Your task to perform on an android device: Go to privacy settings Image 0: 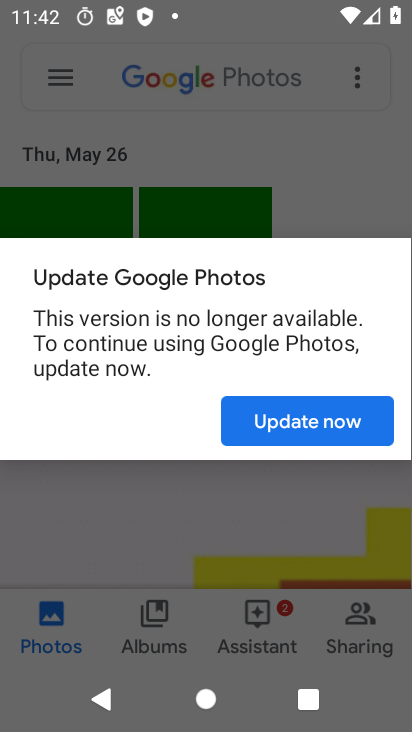
Step 0: press home button
Your task to perform on an android device: Go to privacy settings Image 1: 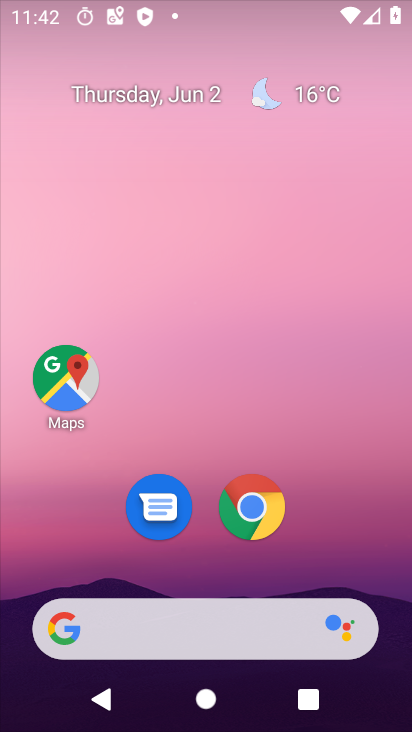
Step 1: drag from (400, 626) to (339, 126)
Your task to perform on an android device: Go to privacy settings Image 2: 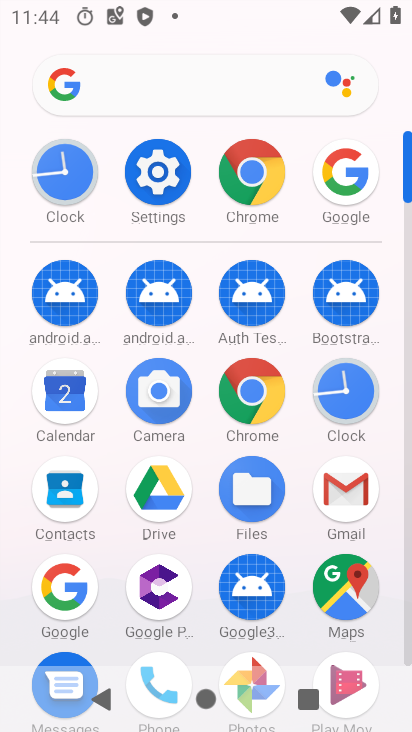
Step 2: click (158, 189)
Your task to perform on an android device: Go to privacy settings Image 3: 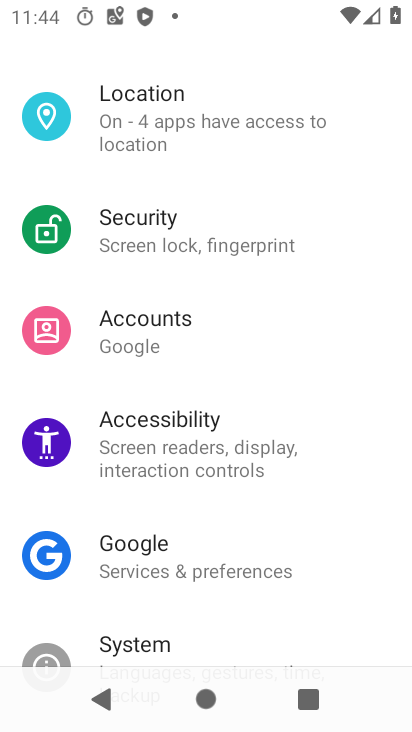
Step 3: drag from (191, 130) to (173, 576)
Your task to perform on an android device: Go to privacy settings Image 4: 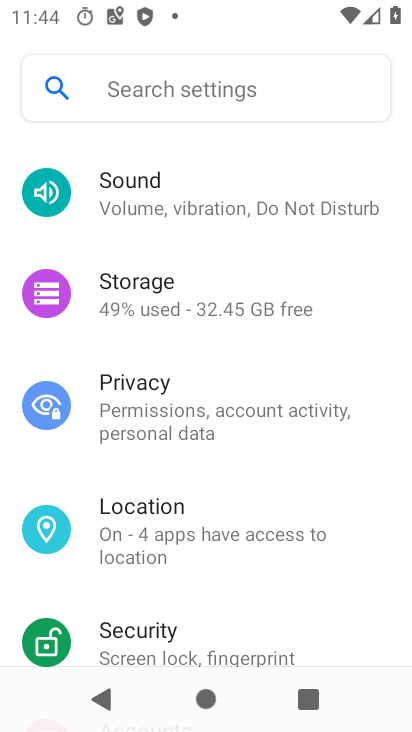
Step 4: click (194, 414)
Your task to perform on an android device: Go to privacy settings Image 5: 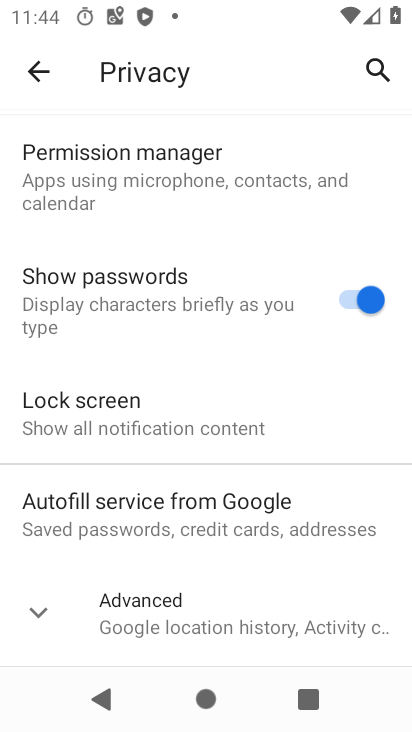
Step 5: task complete